Your task to perform on an android device: Go to Google Image 0: 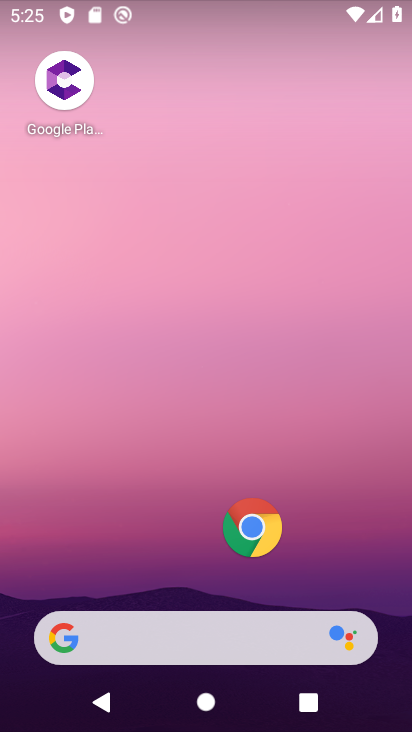
Step 0: drag from (131, 498) to (254, 80)
Your task to perform on an android device: Go to Google Image 1: 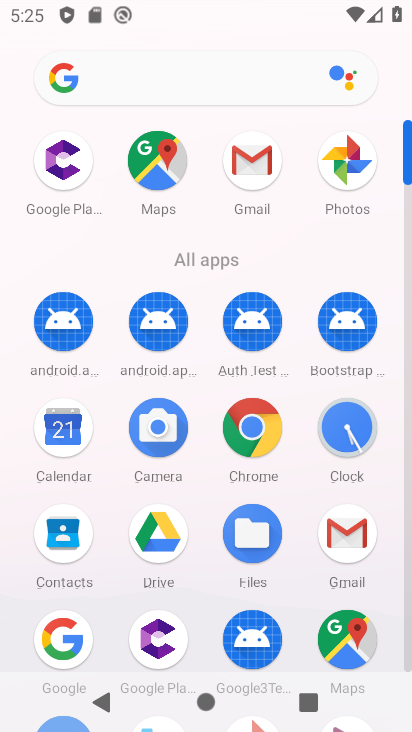
Step 1: click (66, 629)
Your task to perform on an android device: Go to Google Image 2: 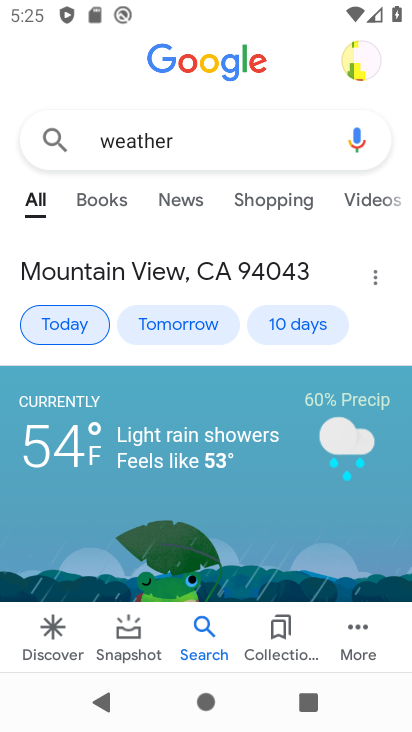
Step 2: task complete